Your task to perform on an android device: open app "ColorNote Notepad Notes" (install if not already installed) Image 0: 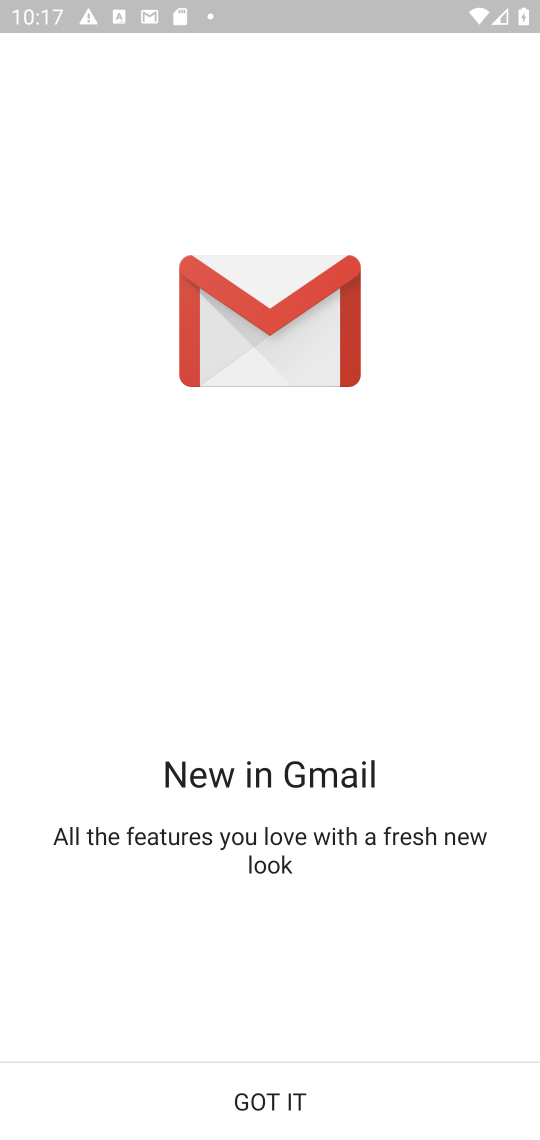
Step 0: click (257, 1102)
Your task to perform on an android device: open app "ColorNote Notepad Notes" (install if not already installed) Image 1: 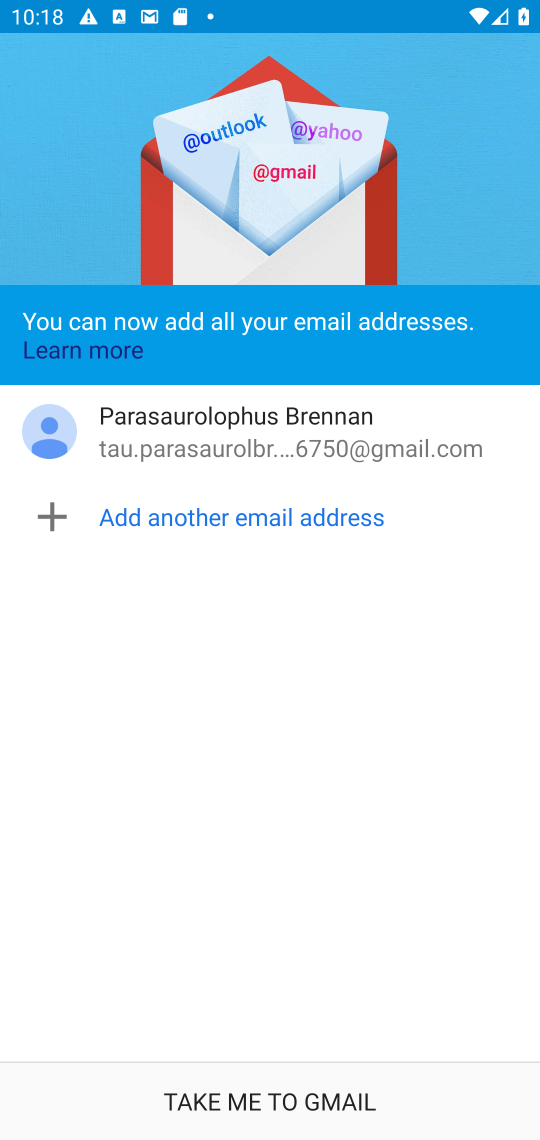
Step 1: press home button
Your task to perform on an android device: open app "ColorNote Notepad Notes" (install if not already installed) Image 2: 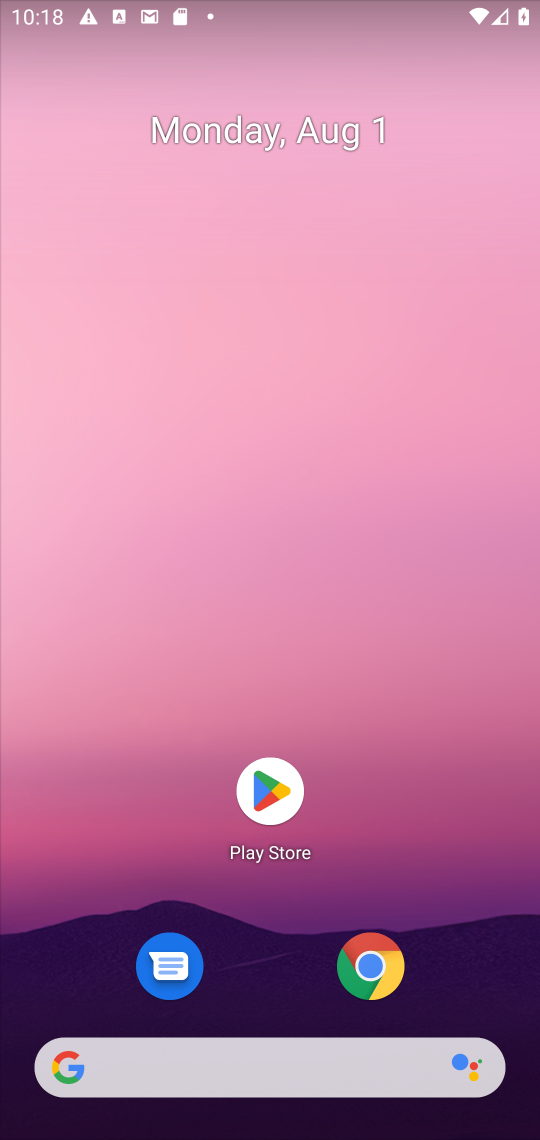
Step 2: click (275, 783)
Your task to perform on an android device: open app "ColorNote Notepad Notes" (install if not already installed) Image 3: 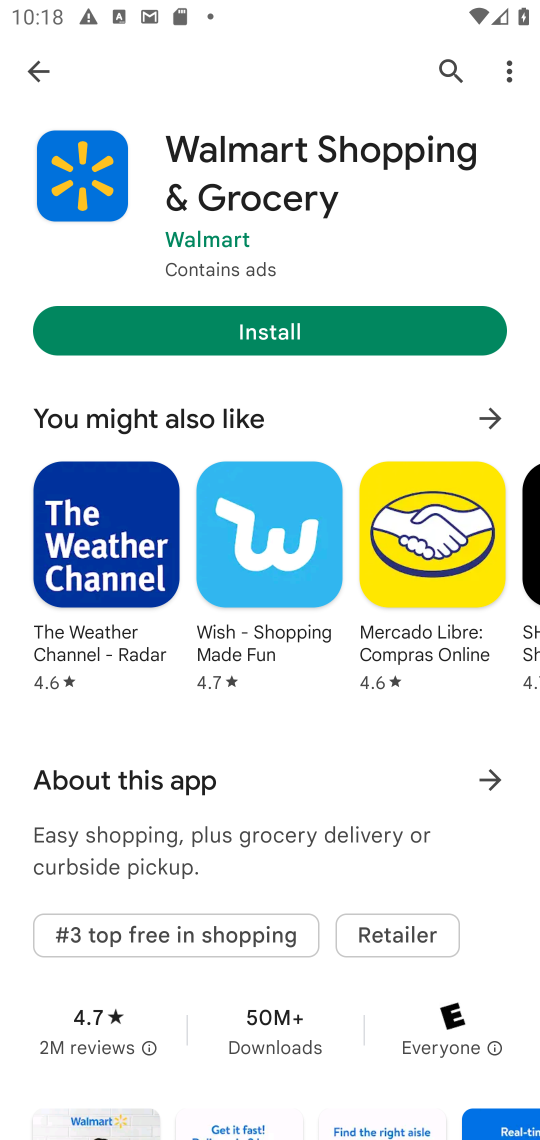
Step 3: click (450, 68)
Your task to perform on an android device: open app "ColorNote Notepad Notes" (install if not already installed) Image 4: 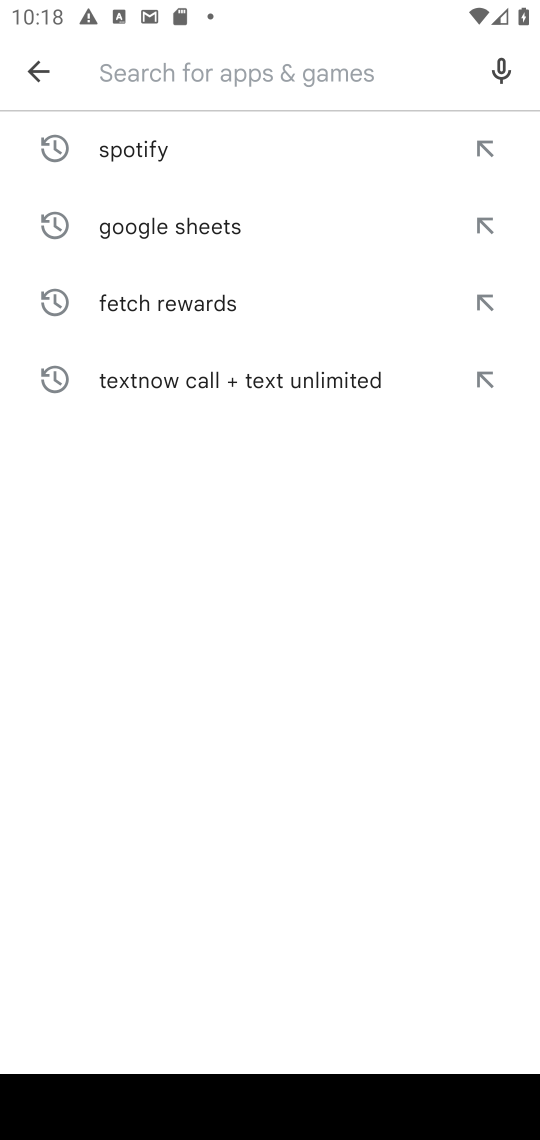
Step 4: type "ColorNote Notepad Notes"
Your task to perform on an android device: open app "ColorNote Notepad Notes" (install if not already installed) Image 5: 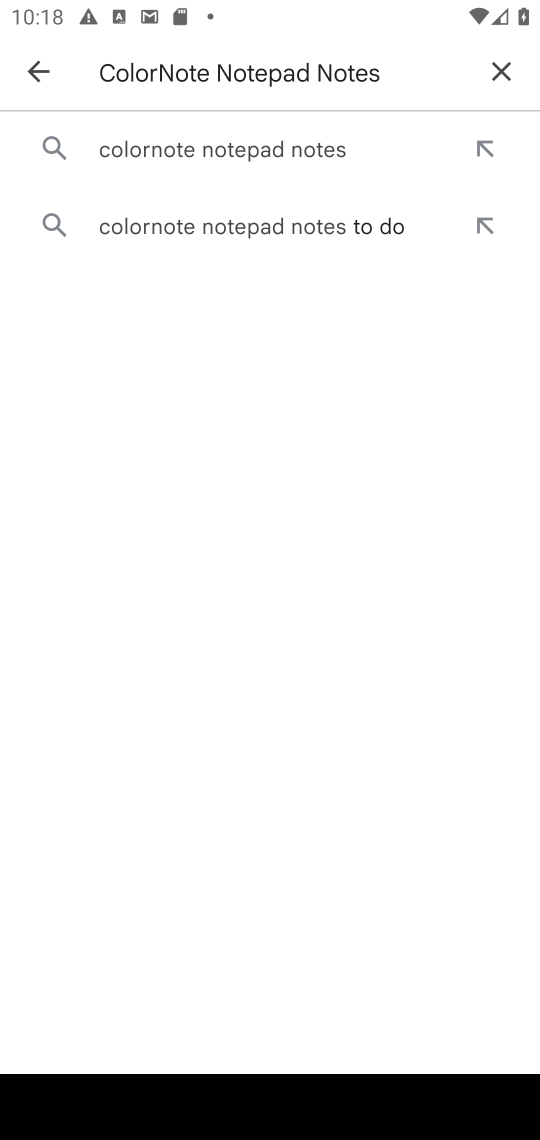
Step 5: click (184, 151)
Your task to perform on an android device: open app "ColorNote Notepad Notes" (install if not already installed) Image 6: 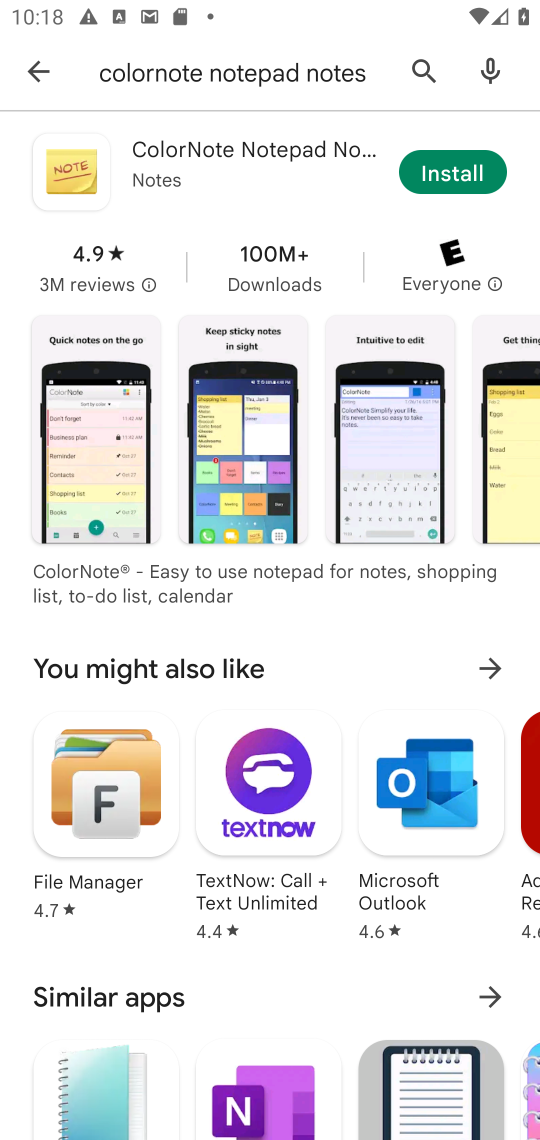
Step 6: click (463, 167)
Your task to perform on an android device: open app "ColorNote Notepad Notes" (install if not already installed) Image 7: 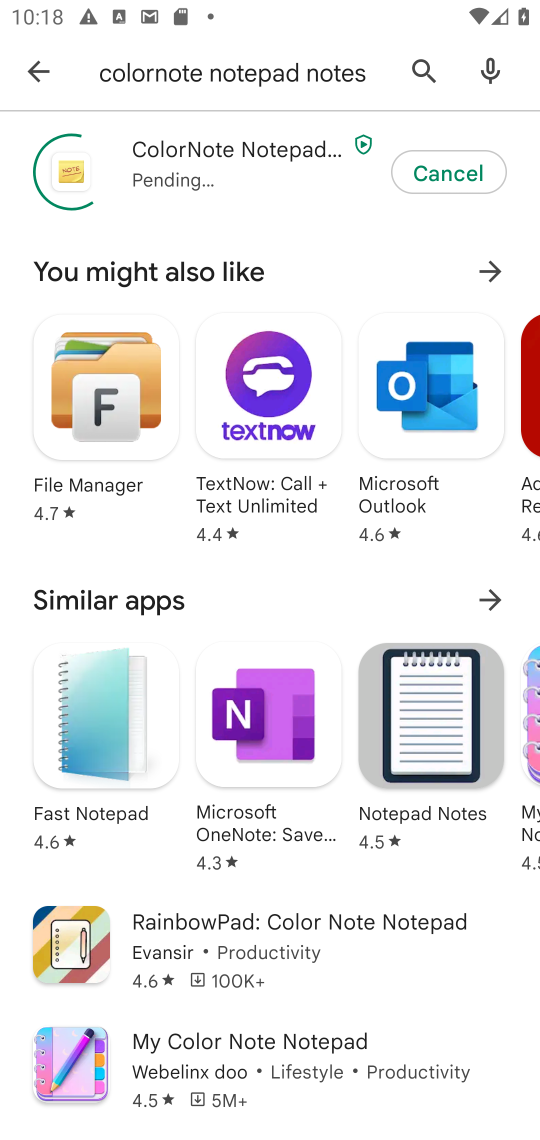
Step 7: click (416, 169)
Your task to perform on an android device: open app "ColorNote Notepad Notes" (install if not already installed) Image 8: 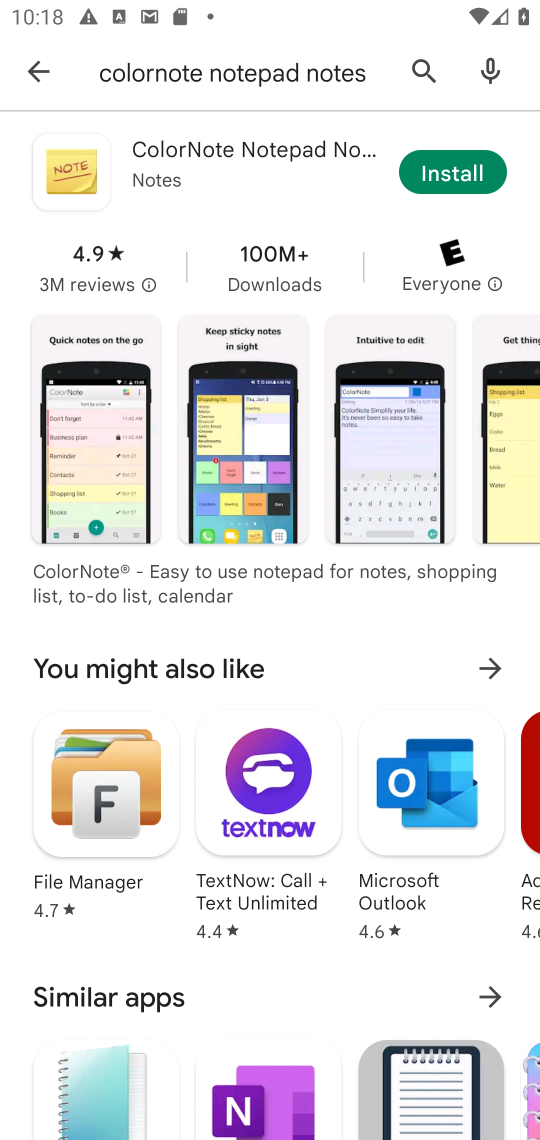
Step 8: task complete